Your task to perform on an android device: clear all cookies in the chrome app Image 0: 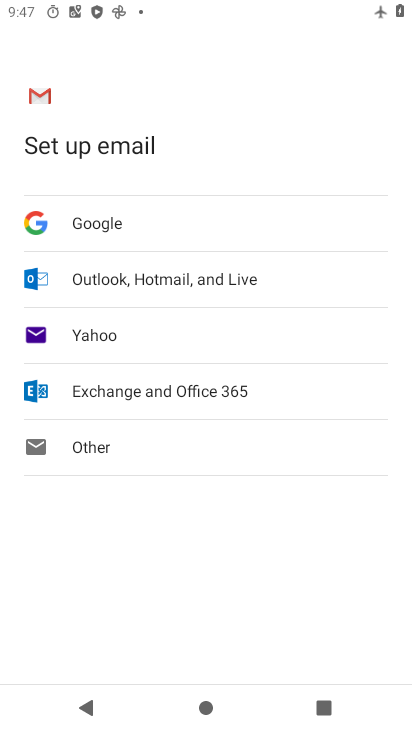
Step 0: press home button
Your task to perform on an android device: clear all cookies in the chrome app Image 1: 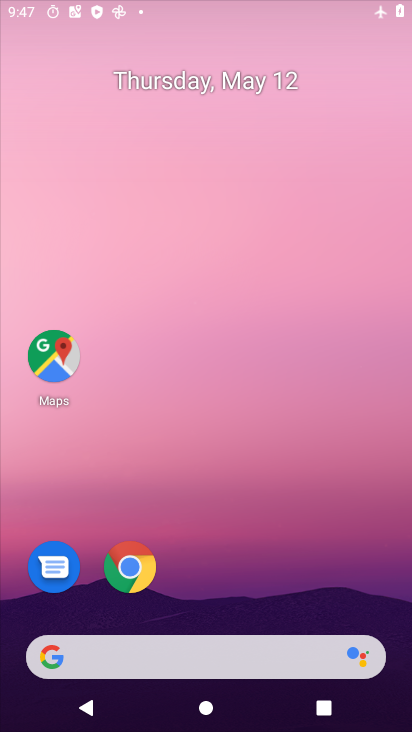
Step 1: drag from (247, 563) to (293, 158)
Your task to perform on an android device: clear all cookies in the chrome app Image 2: 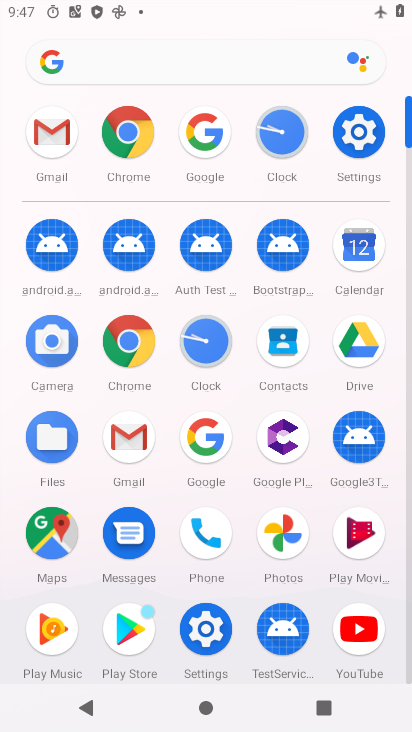
Step 2: click (136, 139)
Your task to perform on an android device: clear all cookies in the chrome app Image 3: 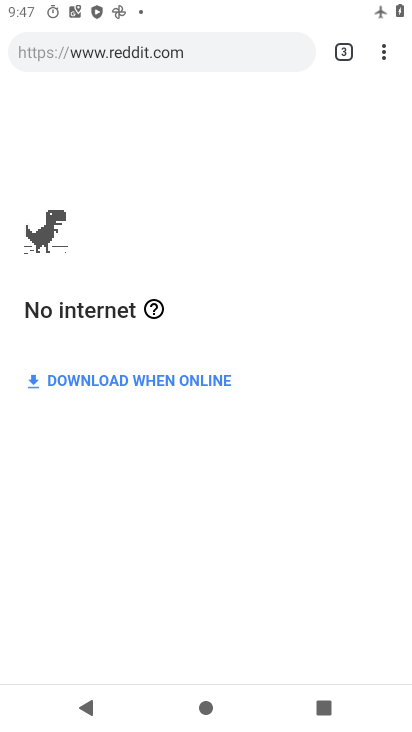
Step 3: click (387, 58)
Your task to perform on an android device: clear all cookies in the chrome app Image 4: 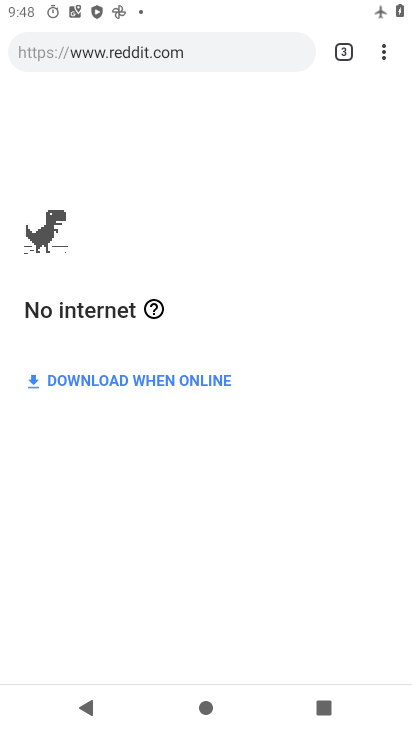
Step 4: click (387, 60)
Your task to perform on an android device: clear all cookies in the chrome app Image 5: 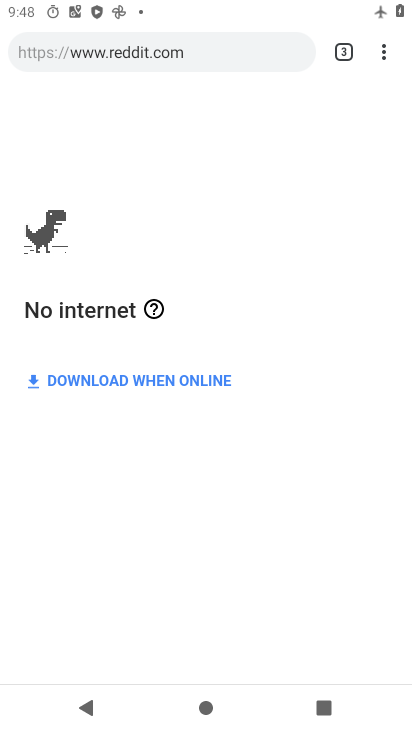
Step 5: click (377, 70)
Your task to perform on an android device: clear all cookies in the chrome app Image 6: 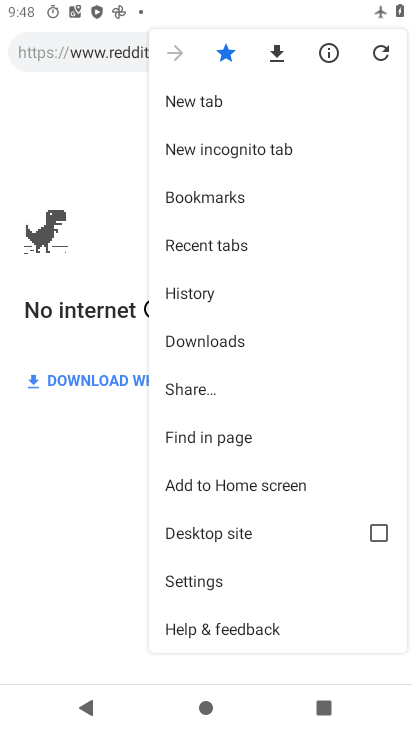
Step 6: click (219, 302)
Your task to perform on an android device: clear all cookies in the chrome app Image 7: 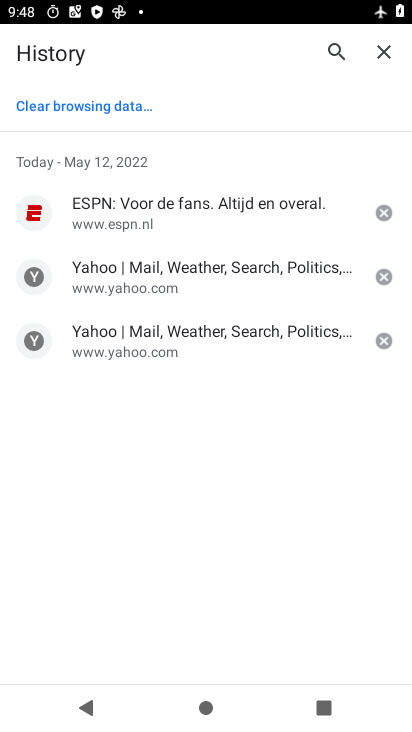
Step 7: click (124, 120)
Your task to perform on an android device: clear all cookies in the chrome app Image 8: 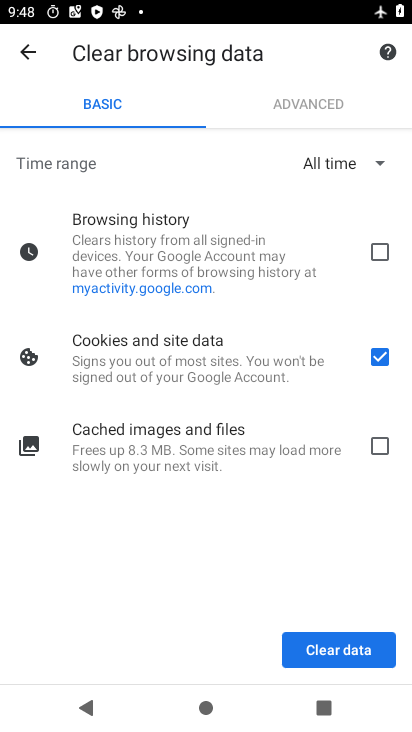
Step 8: click (346, 649)
Your task to perform on an android device: clear all cookies in the chrome app Image 9: 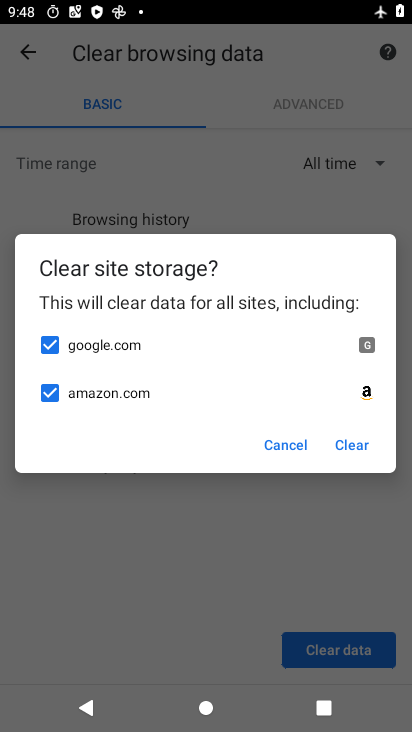
Step 9: click (357, 442)
Your task to perform on an android device: clear all cookies in the chrome app Image 10: 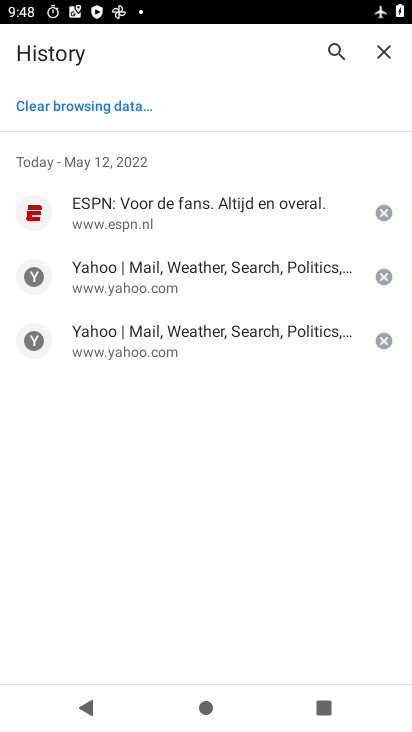
Step 10: task complete